Your task to perform on an android device: Search for the ikea sjalv lamp Image 0: 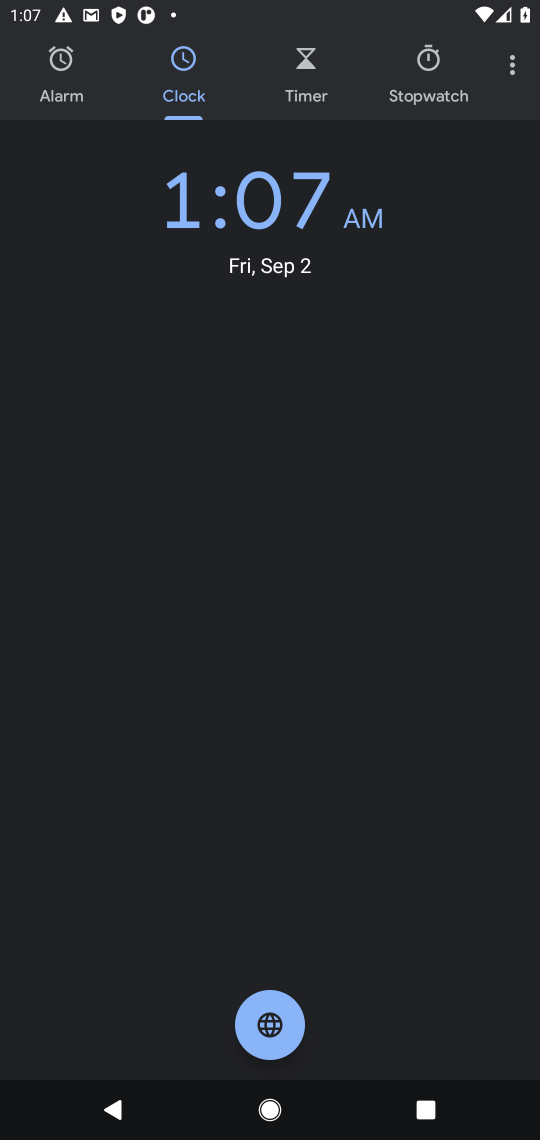
Step 0: press home button
Your task to perform on an android device: Search for the ikea sjalv lamp Image 1: 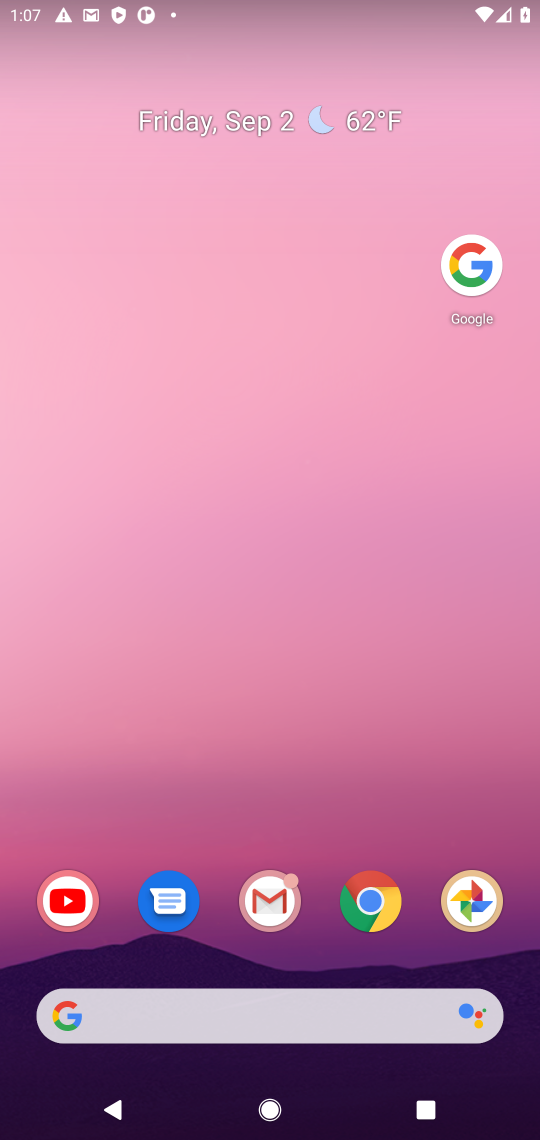
Step 1: drag from (285, 975) to (290, 249)
Your task to perform on an android device: Search for the ikea sjalv lamp Image 2: 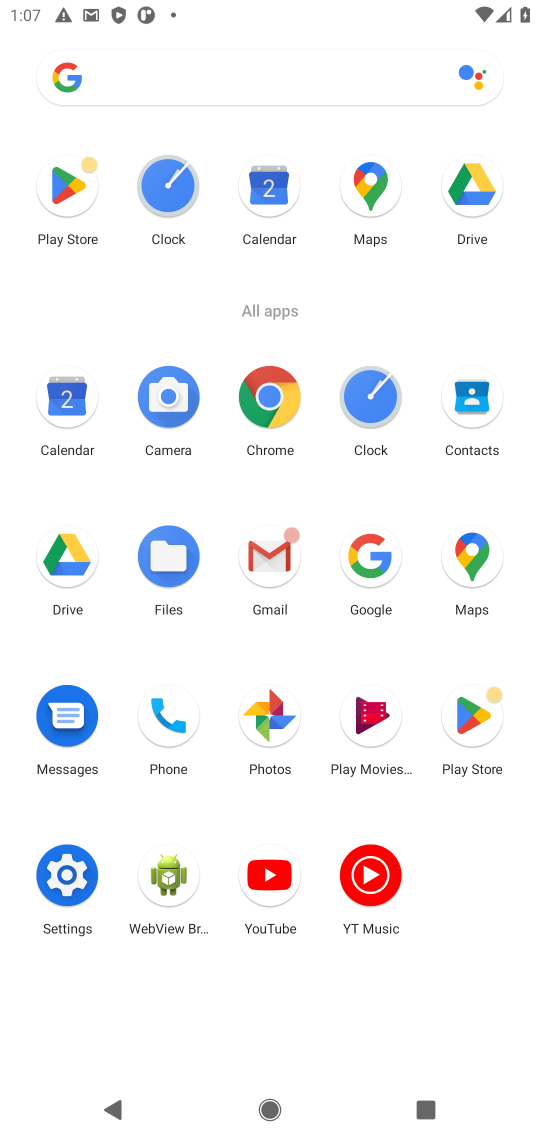
Step 2: click (373, 561)
Your task to perform on an android device: Search for the ikea sjalv lamp Image 3: 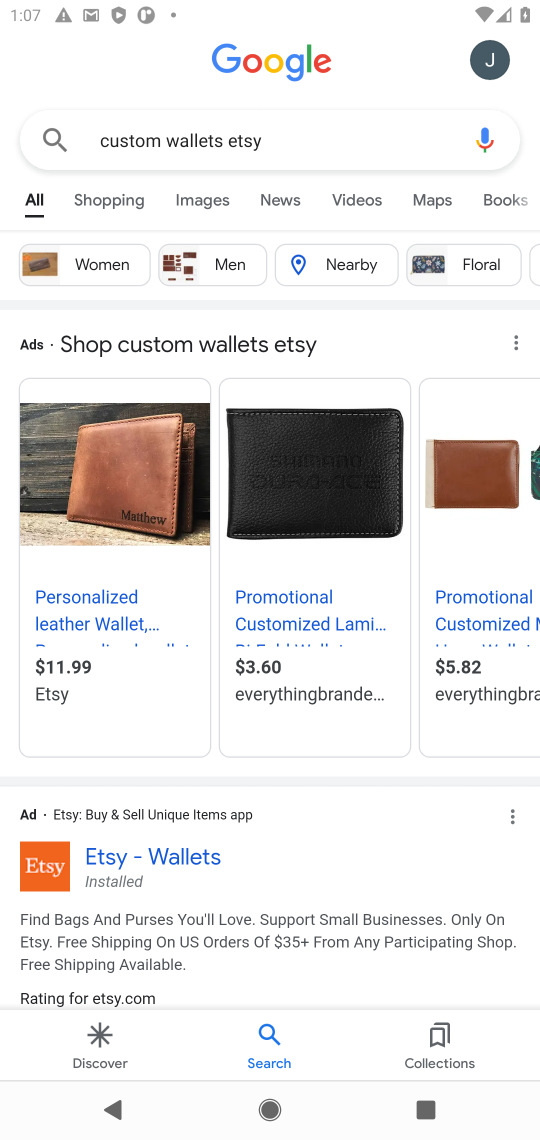
Step 3: click (316, 129)
Your task to perform on an android device: Search for the ikea sjalv lamp Image 4: 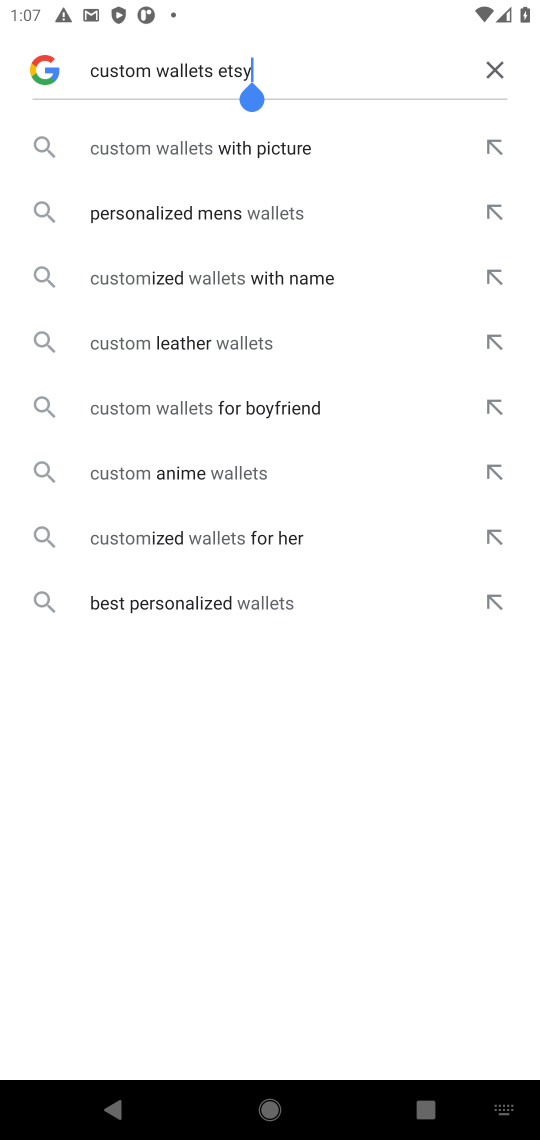
Step 4: click (505, 63)
Your task to perform on an android device: Search for the ikea sjalv lamp Image 5: 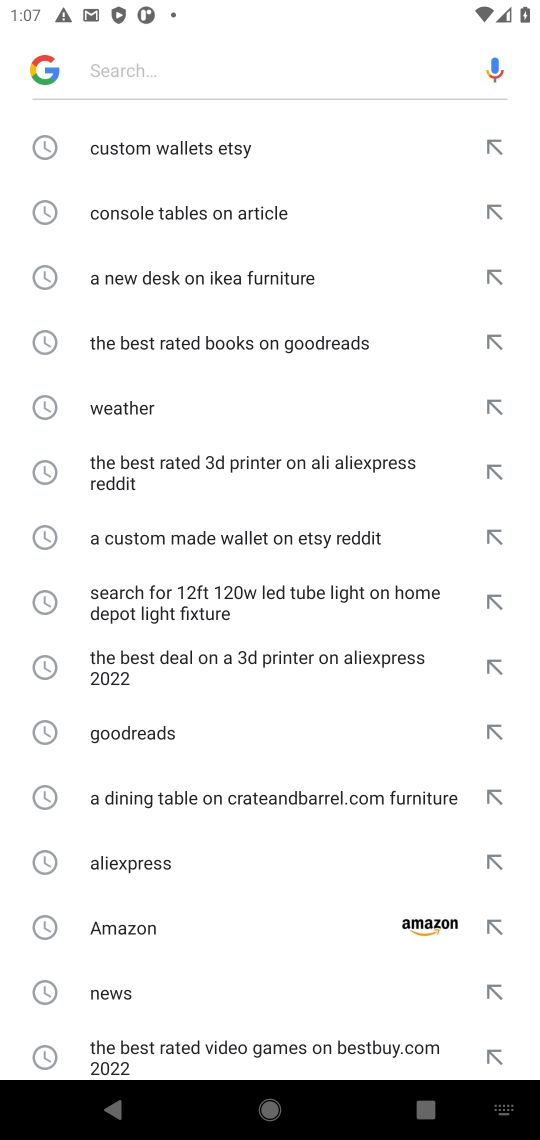
Step 5: click (310, 55)
Your task to perform on an android device: Search for the ikea sjalv lamp Image 6: 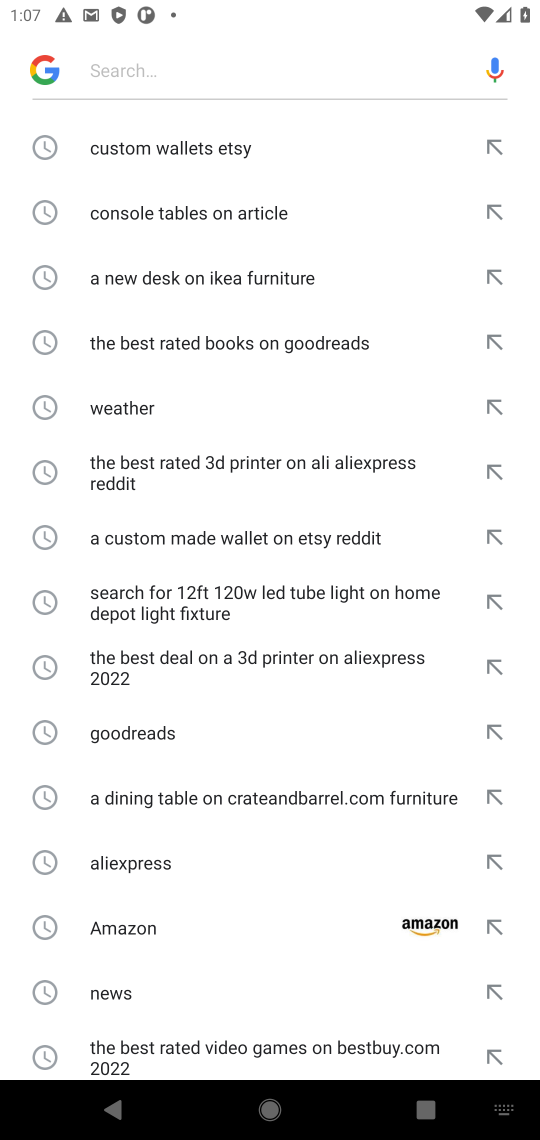
Step 6: type " the ikea sjalv lamp "
Your task to perform on an android device: Search for the ikea sjalv lamp Image 7: 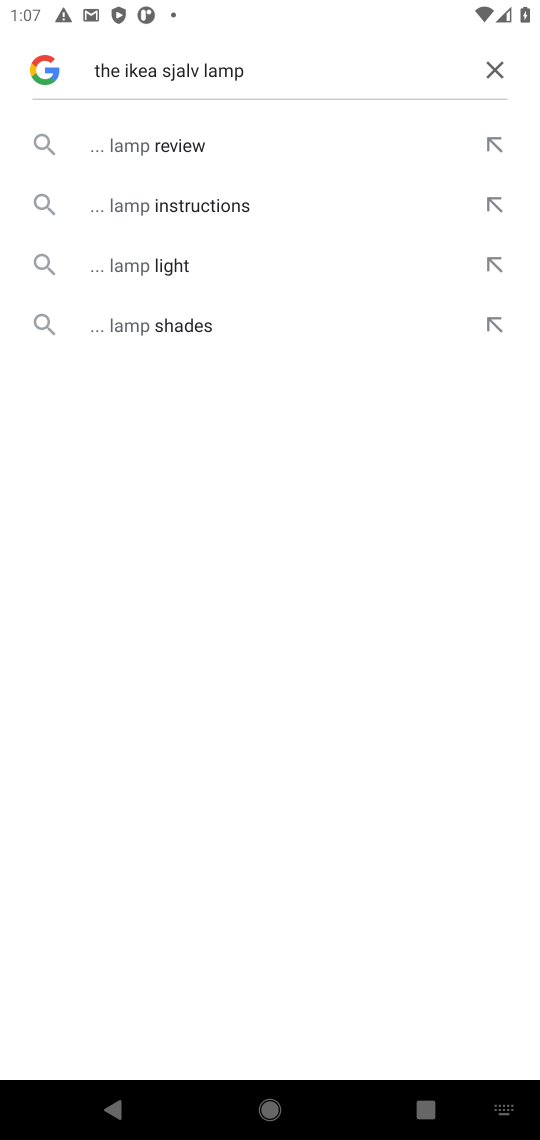
Step 7: click (184, 146)
Your task to perform on an android device: Search for the ikea sjalv lamp Image 8: 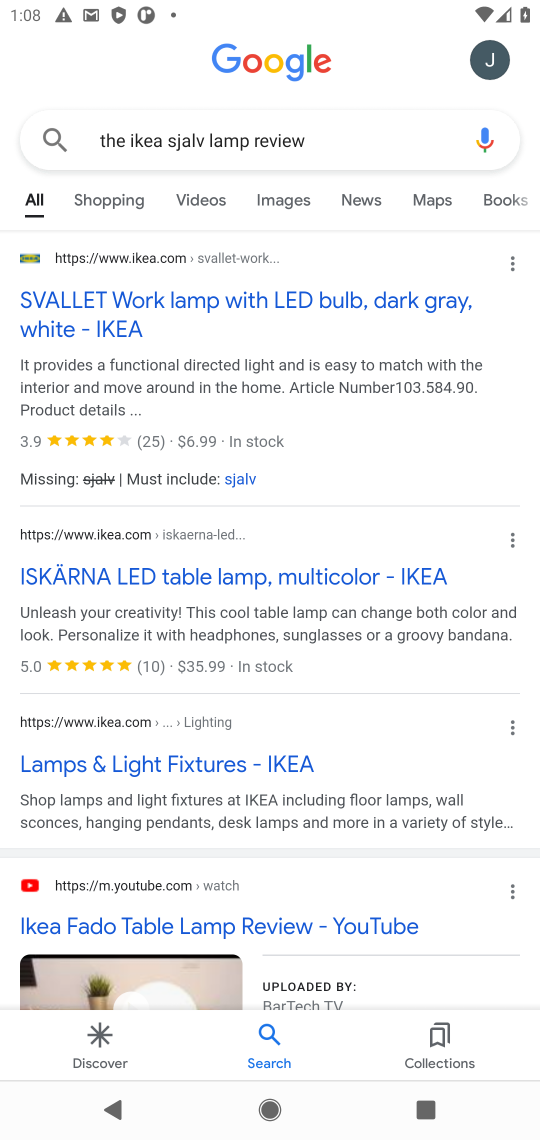
Step 8: task complete